Your task to perform on an android device: Go to settings Image 0: 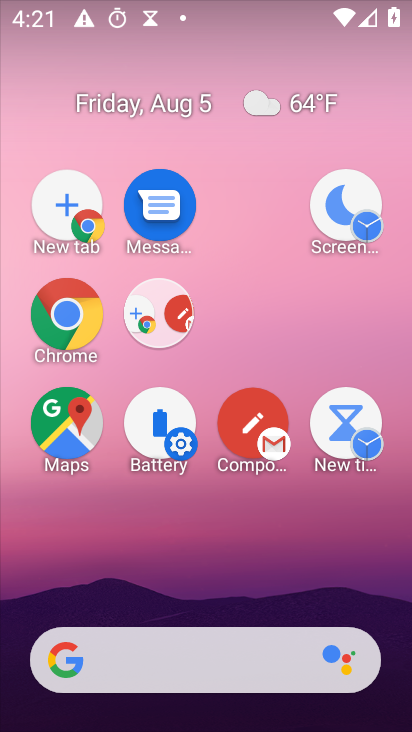
Step 0: drag from (259, 573) to (216, 21)
Your task to perform on an android device: Go to settings Image 1: 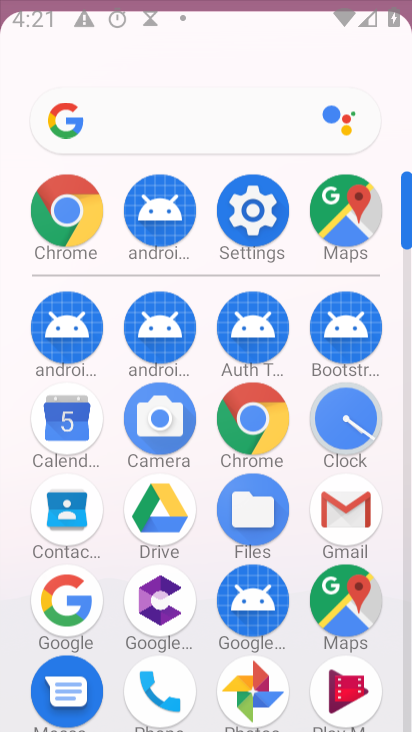
Step 1: drag from (252, 474) to (213, 14)
Your task to perform on an android device: Go to settings Image 2: 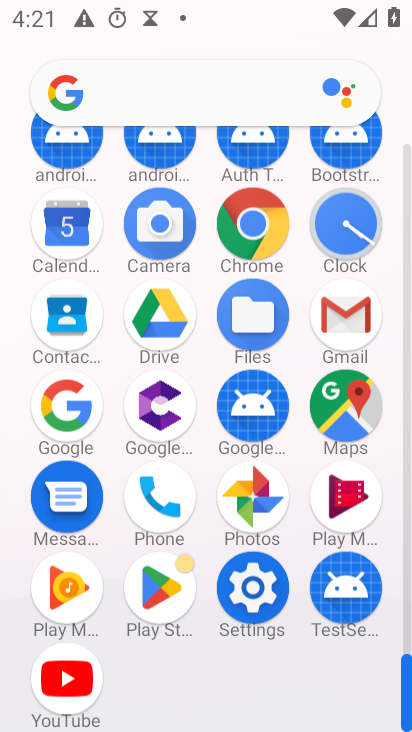
Step 2: drag from (282, 491) to (277, 105)
Your task to perform on an android device: Go to settings Image 3: 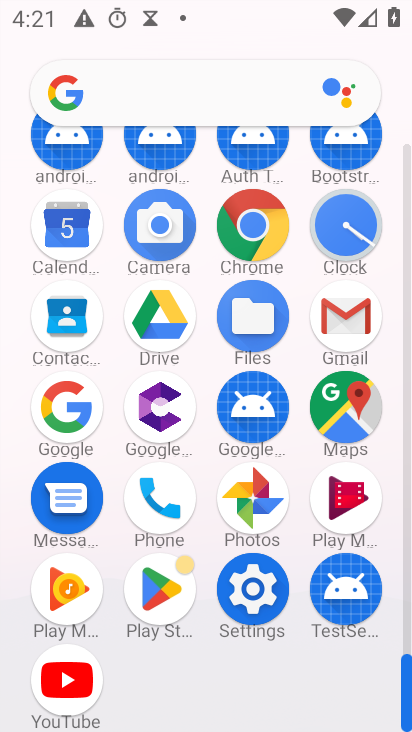
Step 3: click (256, 592)
Your task to perform on an android device: Go to settings Image 4: 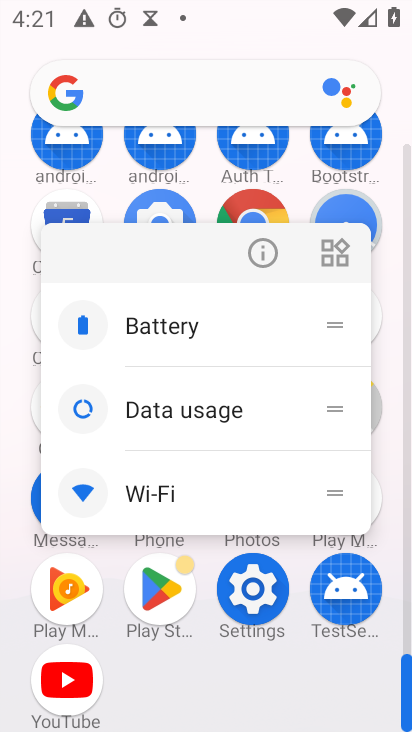
Step 4: click (262, 595)
Your task to perform on an android device: Go to settings Image 5: 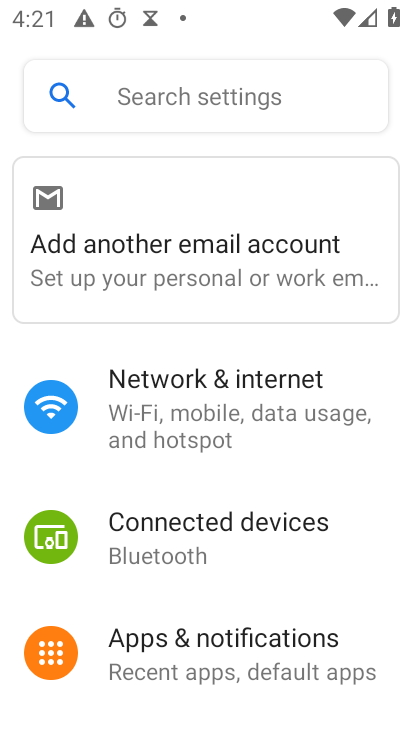
Step 5: task complete